Your task to perform on an android device: turn on priority inbox in the gmail app Image 0: 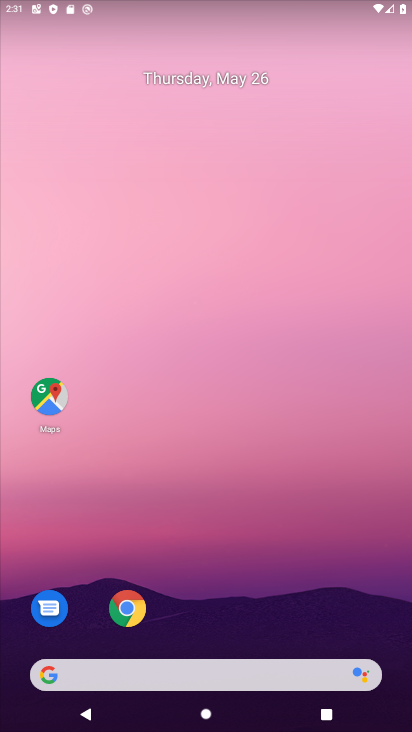
Step 0: drag from (277, 539) to (304, 116)
Your task to perform on an android device: turn on priority inbox in the gmail app Image 1: 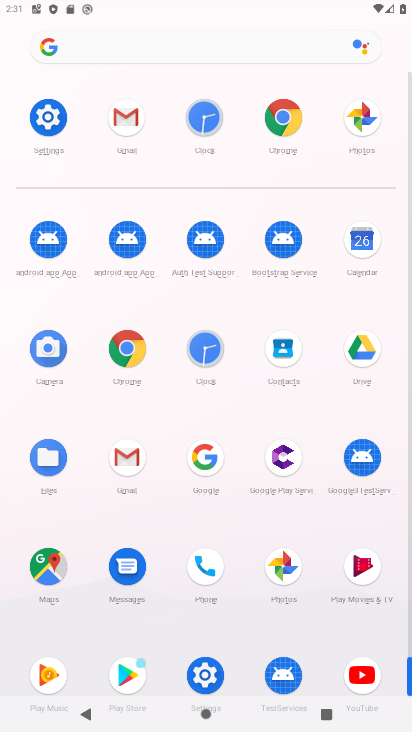
Step 1: click (127, 124)
Your task to perform on an android device: turn on priority inbox in the gmail app Image 2: 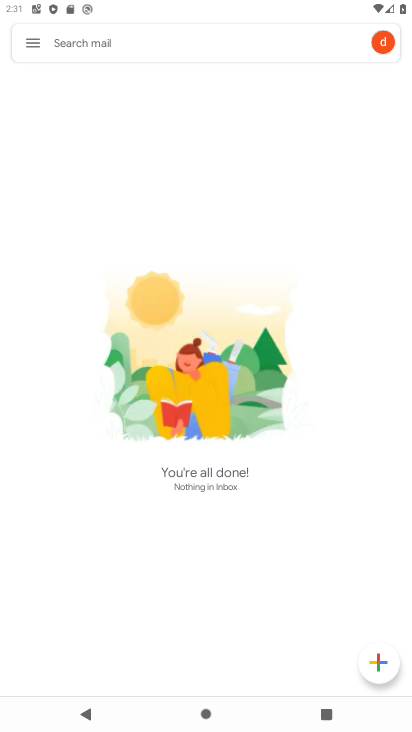
Step 2: click (25, 46)
Your task to perform on an android device: turn on priority inbox in the gmail app Image 3: 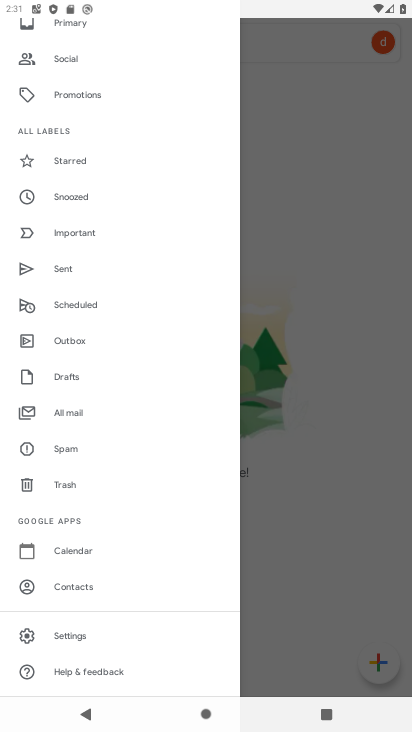
Step 3: drag from (101, 558) to (167, 193)
Your task to perform on an android device: turn on priority inbox in the gmail app Image 4: 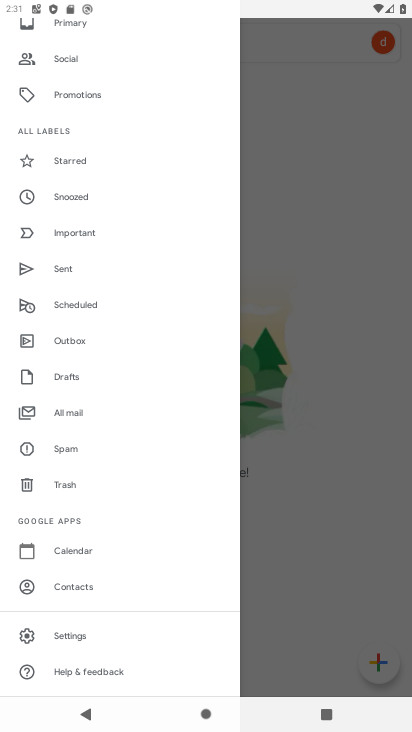
Step 4: click (76, 633)
Your task to perform on an android device: turn on priority inbox in the gmail app Image 5: 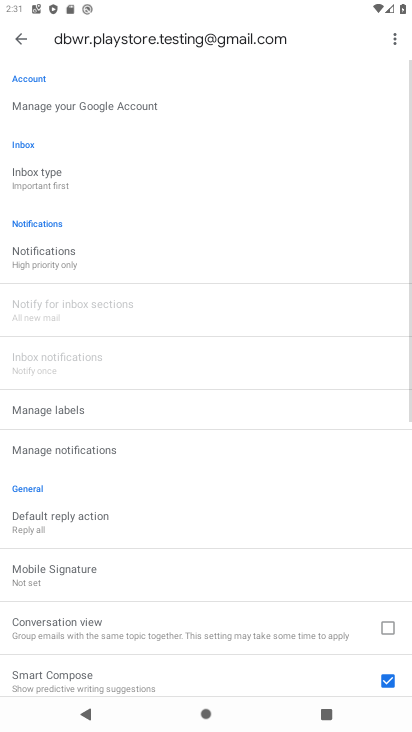
Step 5: click (66, 176)
Your task to perform on an android device: turn on priority inbox in the gmail app Image 6: 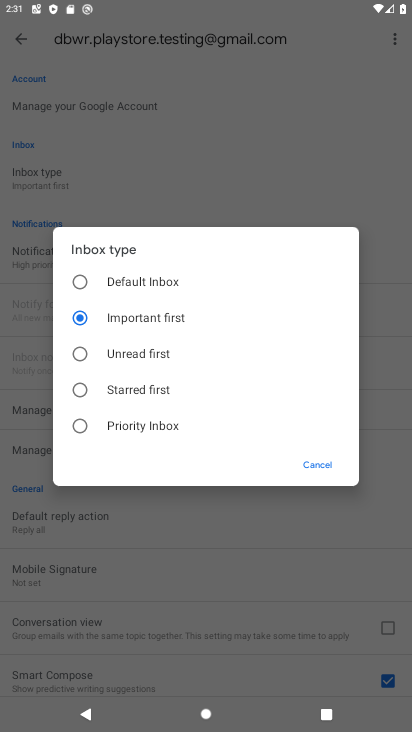
Step 6: click (125, 433)
Your task to perform on an android device: turn on priority inbox in the gmail app Image 7: 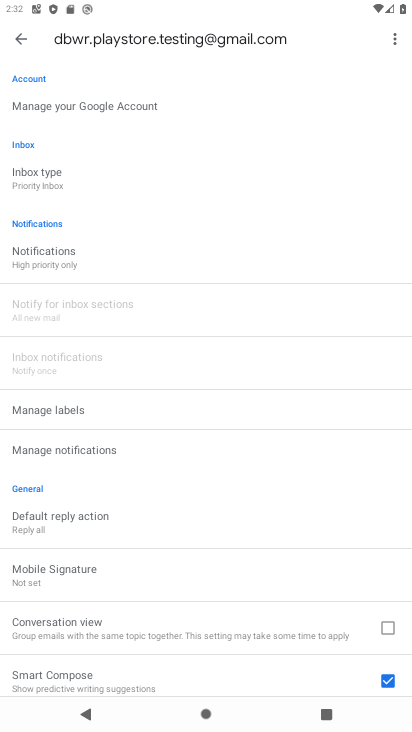
Step 7: task complete